Your task to perform on an android device: turn on priority inbox in the gmail app Image 0: 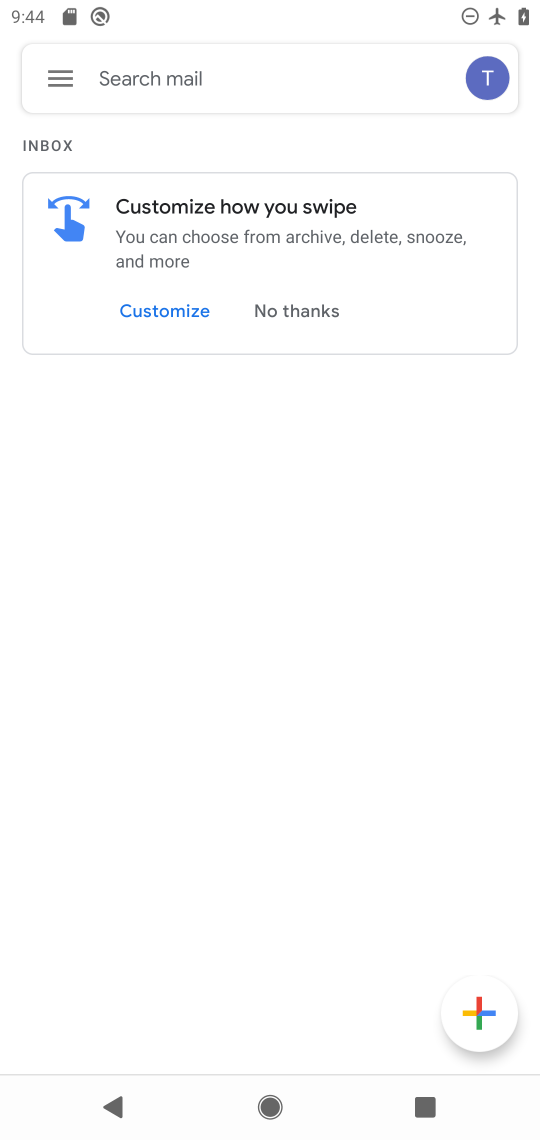
Step 0: click (62, 67)
Your task to perform on an android device: turn on priority inbox in the gmail app Image 1: 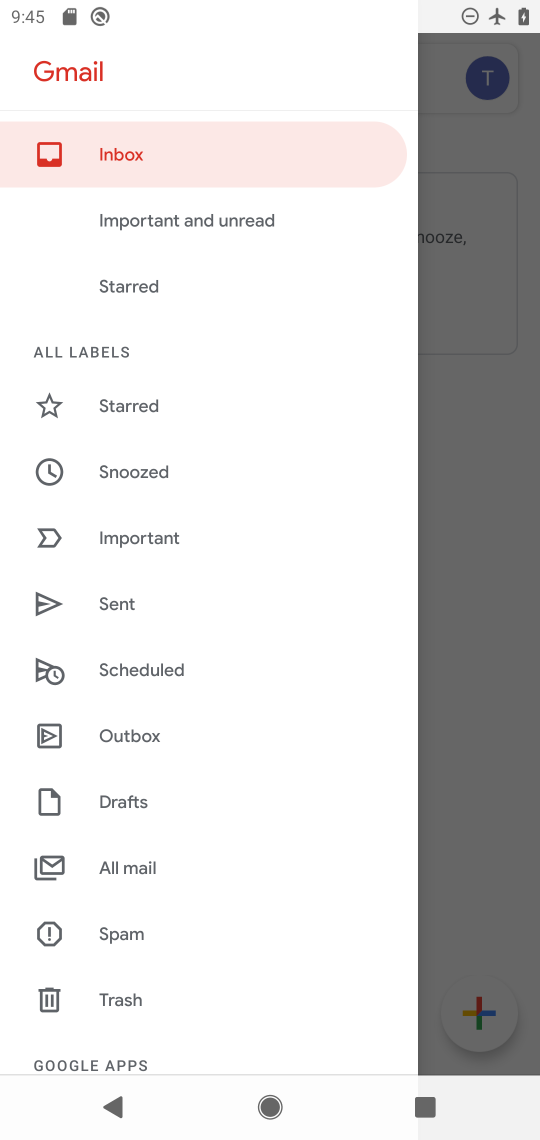
Step 1: drag from (367, 977) to (260, 133)
Your task to perform on an android device: turn on priority inbox in the gmail app Image 2: 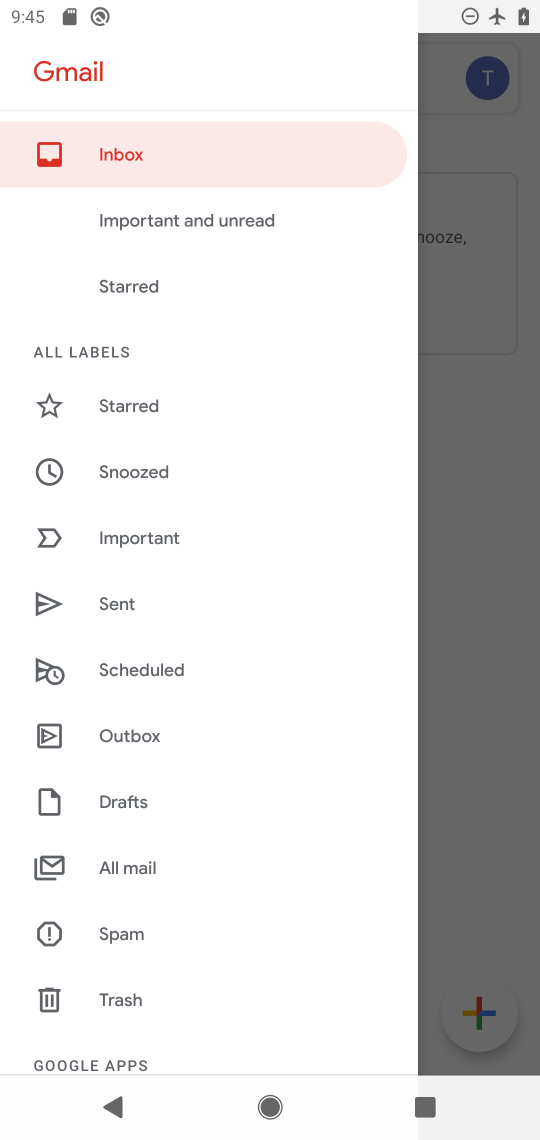
Step 2: drag from (200, 1014) to (190, 141)
Your task to perform on an android device: turn on priority inbox in the gmail app Image 3: 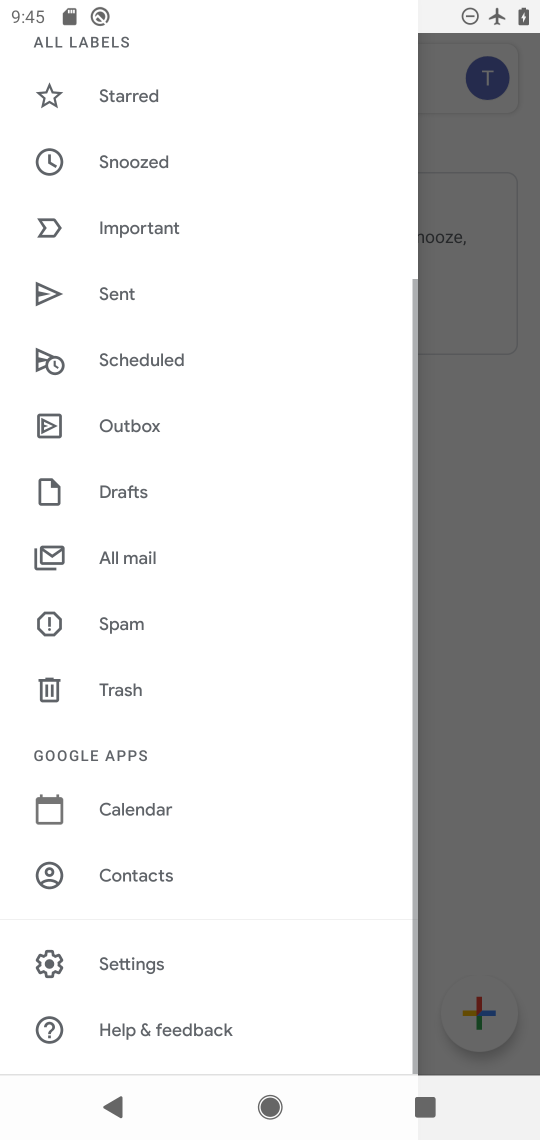
Step 3: click (119, 952)
Your task to perform on an android device: turn on priority inbox in the gmail app Image 4: 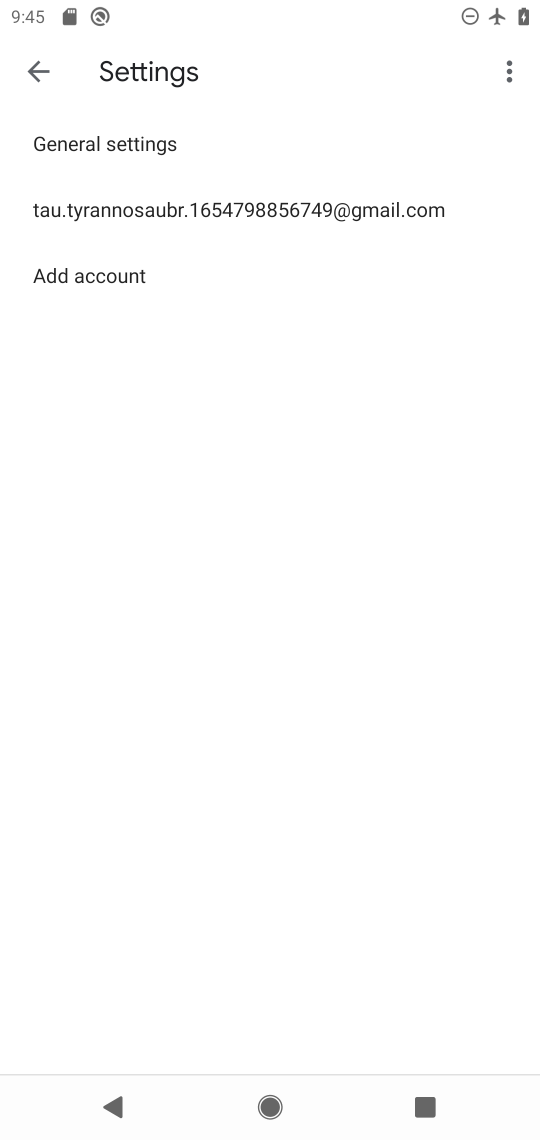
Step 4: click (160, 190)
Your task to perform on an android device: turn on priority inbox in the gmail app Image 5: 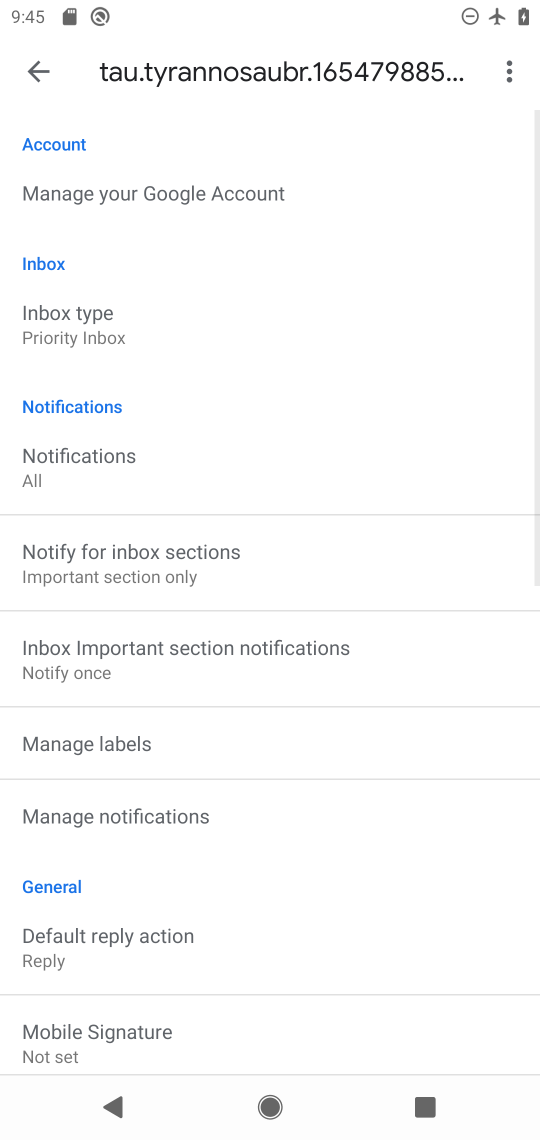
Step 5: click (143, 335)
Your task to perform on an android device: turn on priority inbox in the gmail app Image 6: 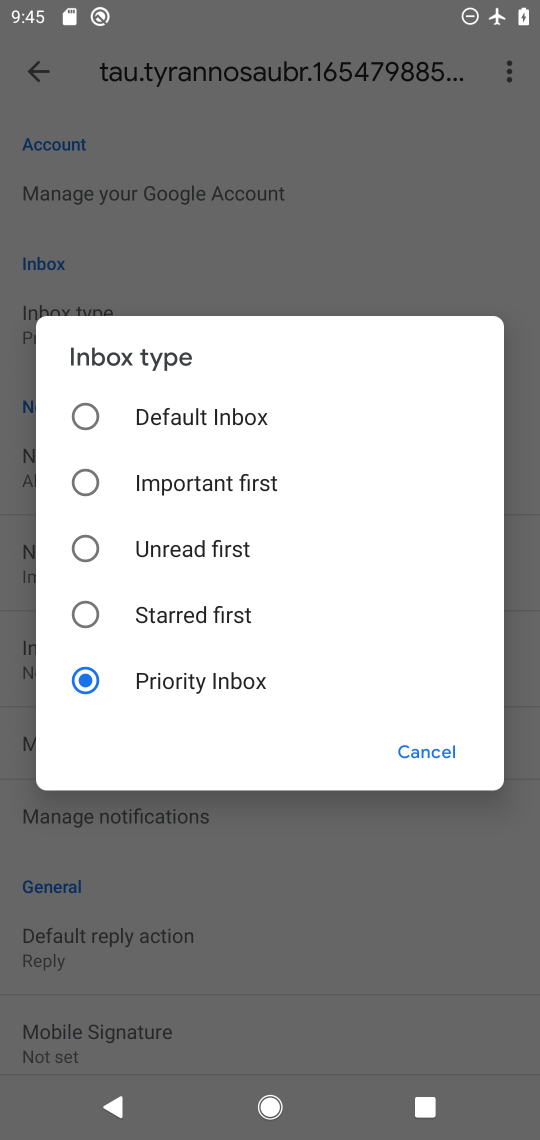
Step 6: task complete